Your task to perform on an android device: What is the capital of Italy? Image 0: 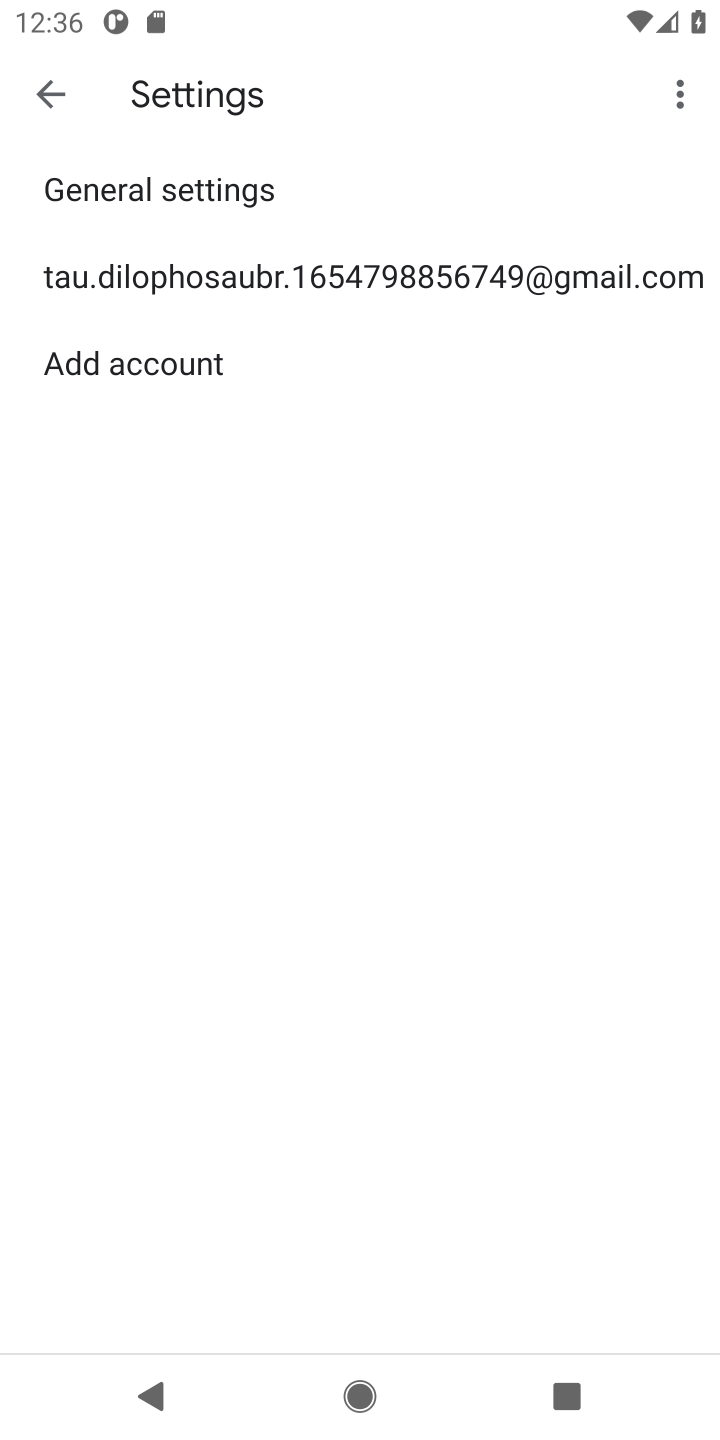
Step 0: press home button
Your task to perform on an android device: What is the capital of Italy? Image 1: 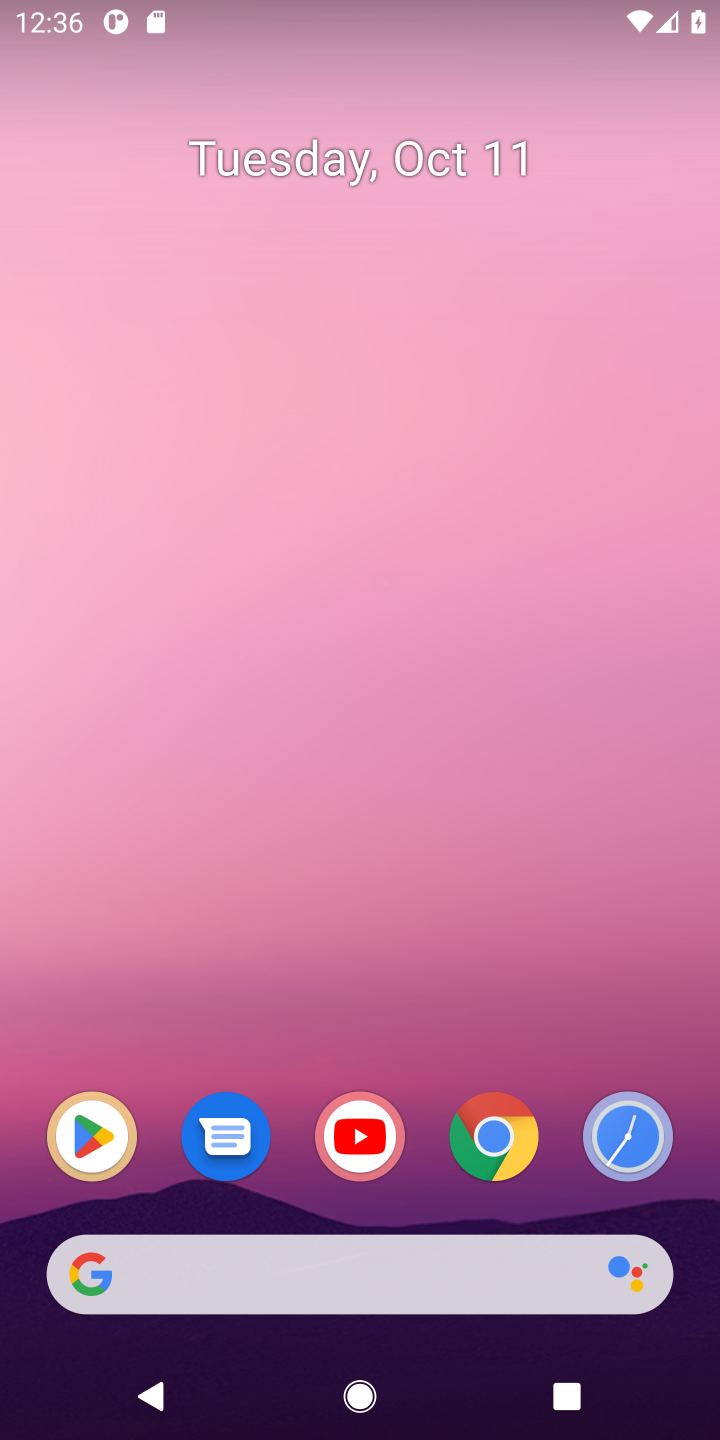
Step 1: click (138, 1280)
Your task to perform on an android device: What is the capital of Italy? Image 2: 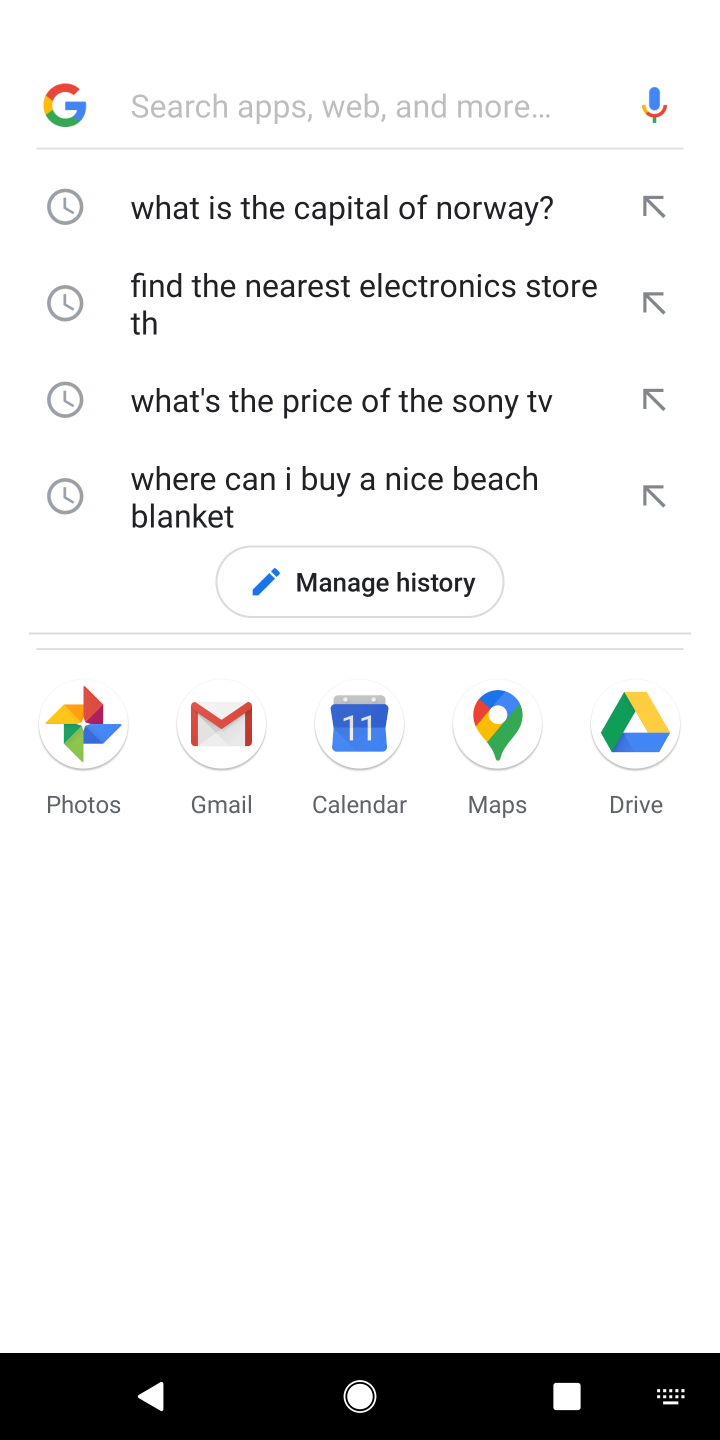
Step 2: type "What is the capital of Italy"
Your task to perform on an android device: What is the capital of Italy? Image 3: 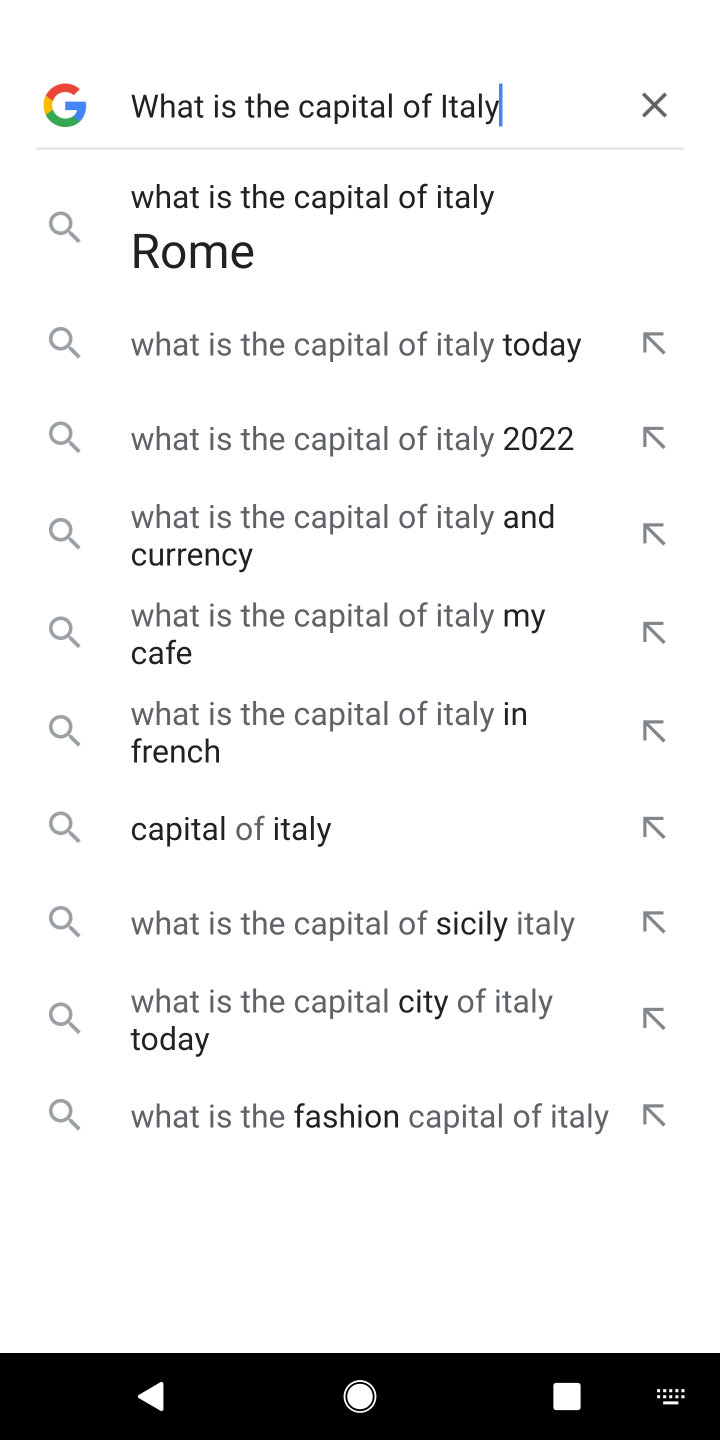
Step 3: press enter
Your task to perform on an android device: What is the capital of Italy? Image 4: 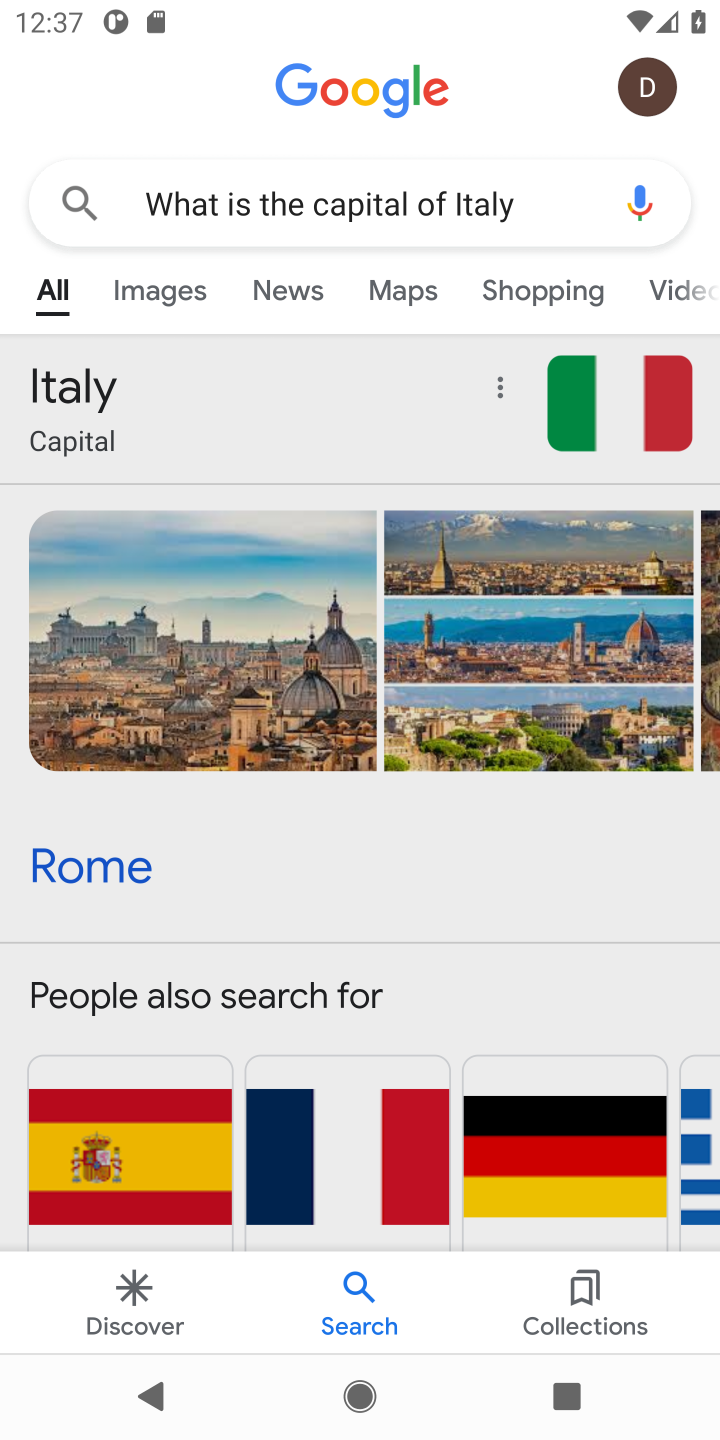
Step 4: task complete